Your task to perform on an android device: Open privacy settings Image 0: 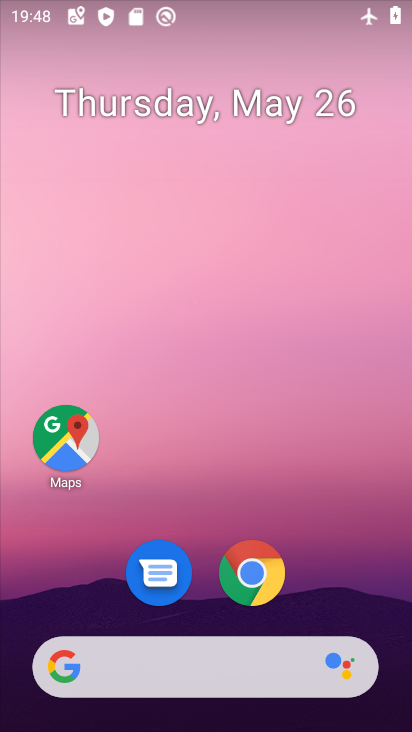
Step 0: drag from (358, 532) to (386, 137)
Your task to perform on an android device: Open privacy settings Image 1: 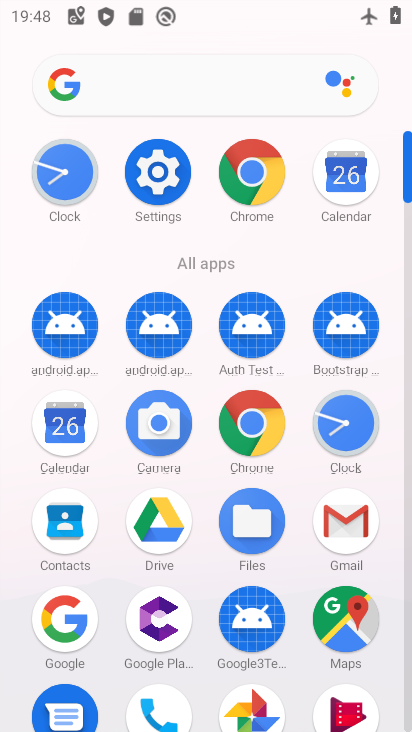
Step 1: click (164, 160)
Your task to perform on an android device: Open privacy settings Image 2: 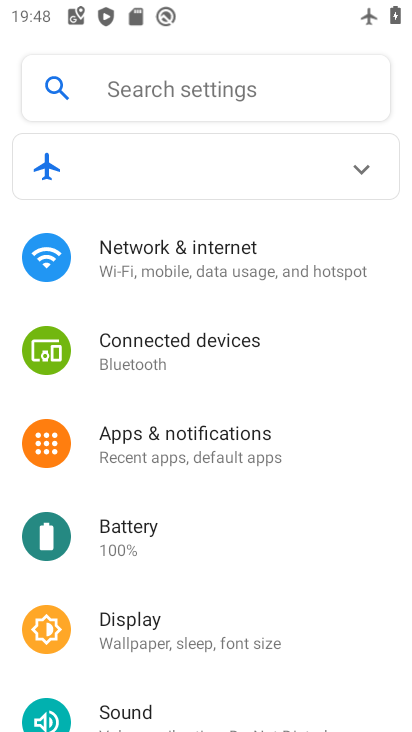
Step 2: drag from (180, 590) to (260, 166)
Your task to perform on an android device: Open privacy settings Image 3: 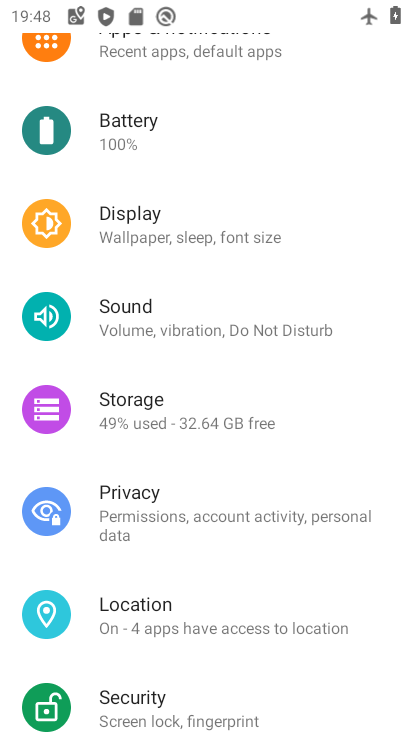
Step 3: click (113, 527)
Your task to perform on an android device: Open privacy settings Image 4: 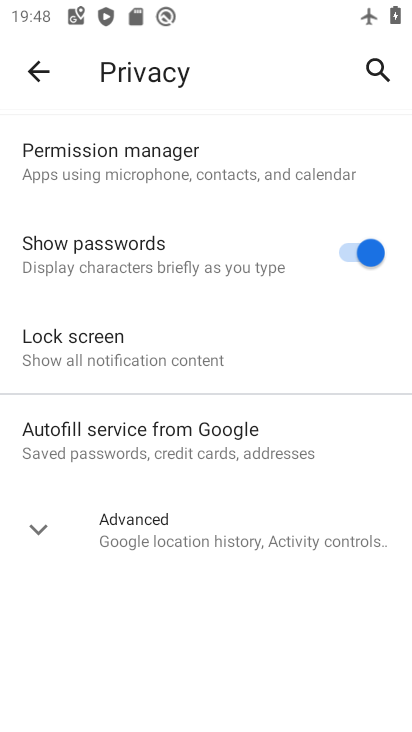
Step 4: task complete